Your task to perform on an android device: Show me recent news Image 0: 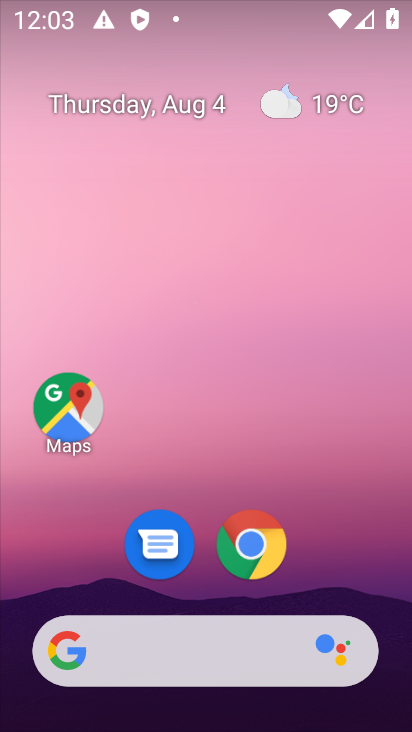
Step 0: drag from (2, 220) to (385, 222)
Your task to perform on an android device: Show me recent news Image 1: 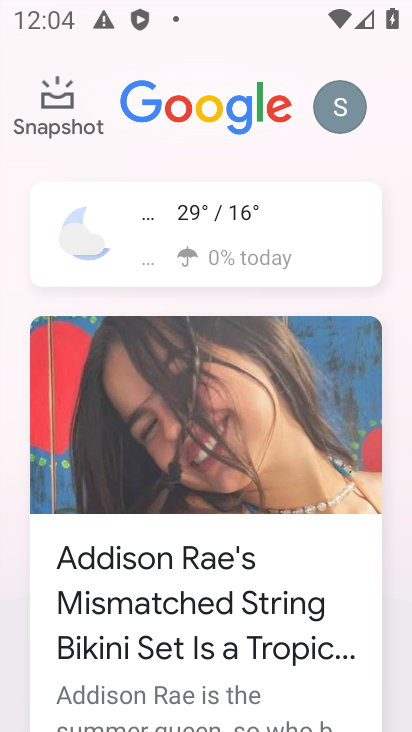
Step 1: drag from (210, 566) to (264, 206)
Your task to perform on an android device: Show me recent news Image 2: 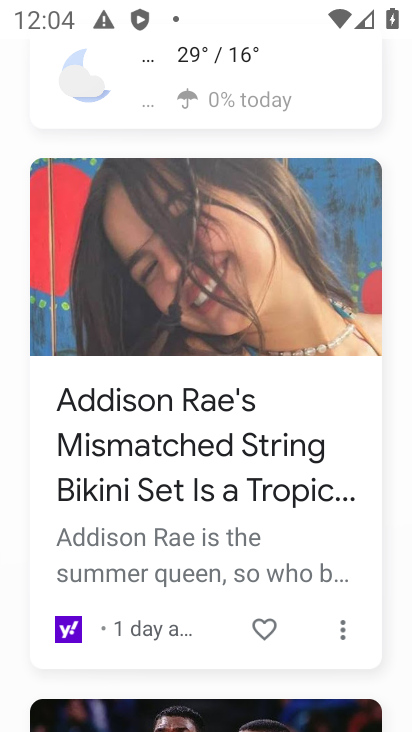
Step 2: click (155, 290)
Your task to perform on an android device: Show me recent news Image 3: 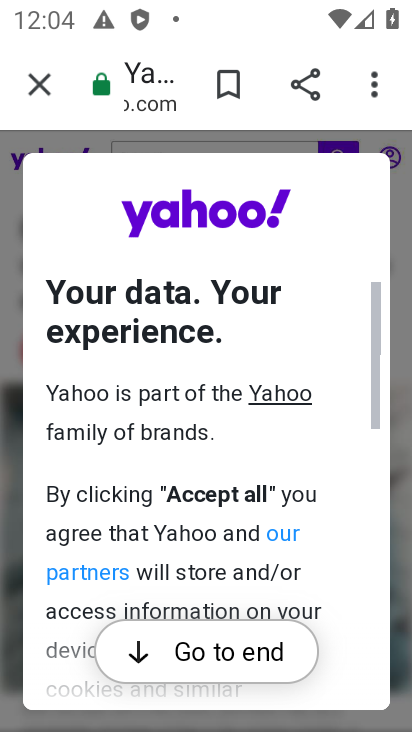
Step 3: drag from (206, 667) to (265, 408)
Your task to perform on an android device: Show me recent news Image 4: 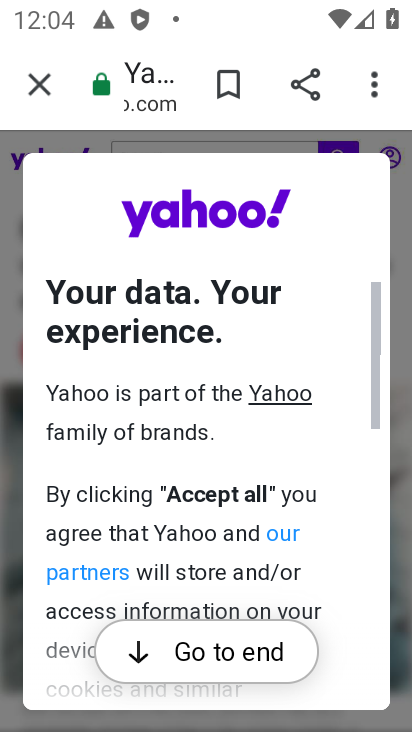
Step 4: click (192, 650)
Your task to perform on an android device: Show me recent news Image 5: 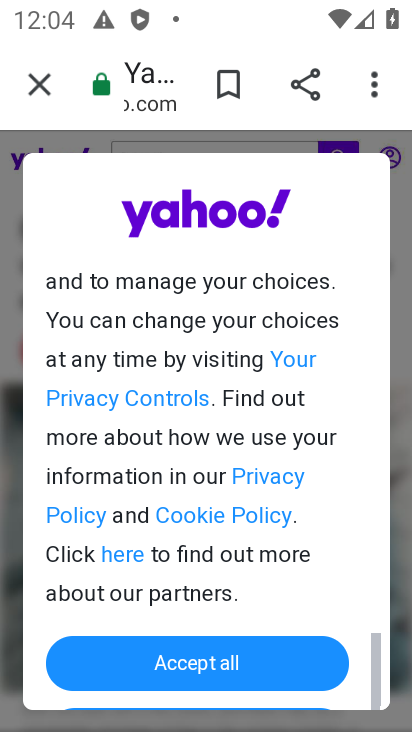
Step 5: click (38, 83)
Your task to perform on an android device: Show me recent news Image 6: 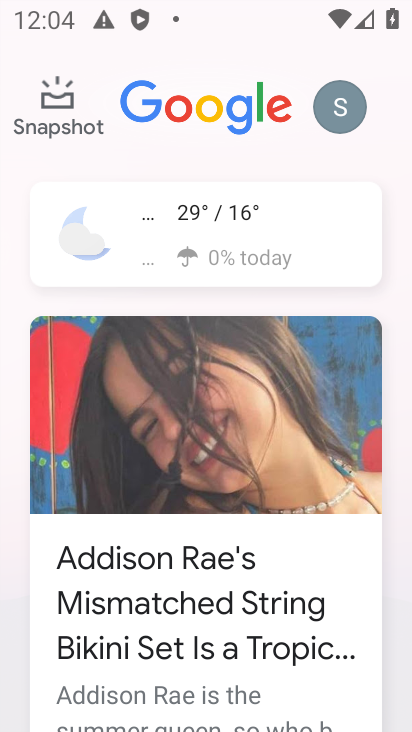
Step 6: task complete